Your task to perform on an android device: Search for sushi restaurants on Maps Image 0: 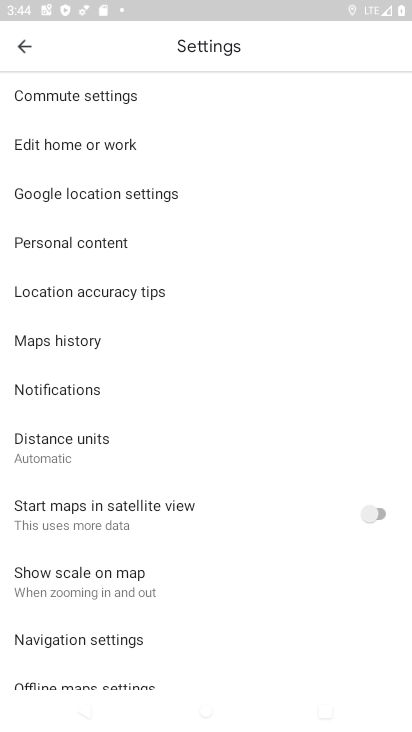
Step 0: click (26, 47)
Your task to perform on an android device: Search for sushi restaurants on Maps Image 1: 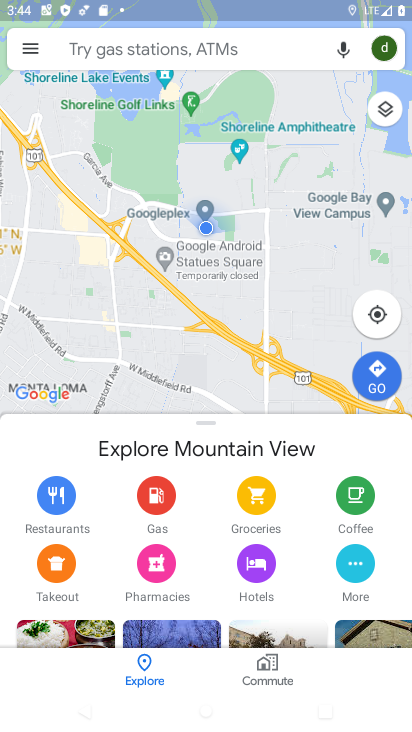
Step 1: click (161, 44)
Your task to perform on an android device: Search for sushi restaurants on Maps Image 2: 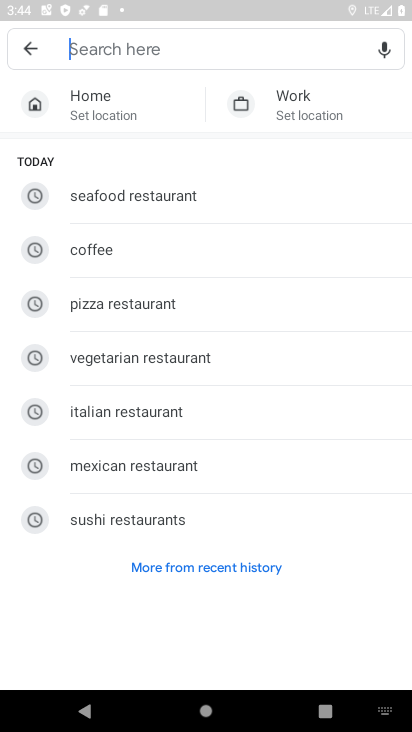
Step 2: type "sushi restaurants"
Your task to perform on an android device: Search for sushi restaurants on Maps Image 3: 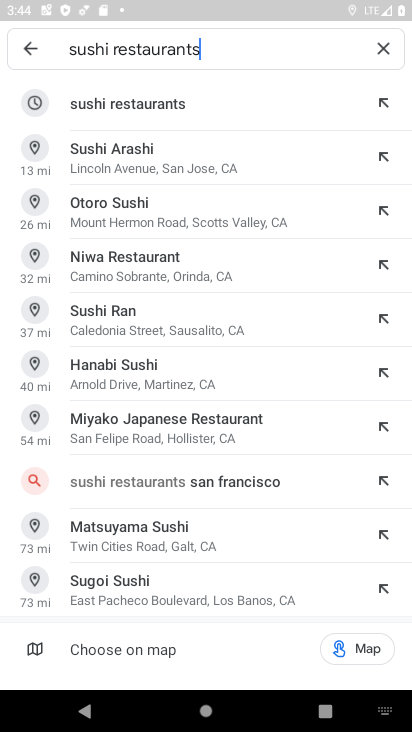
Step 3: click (149, 105)
Your task to perform on an android device: Search for sushi restaurants on Maps Image 4: 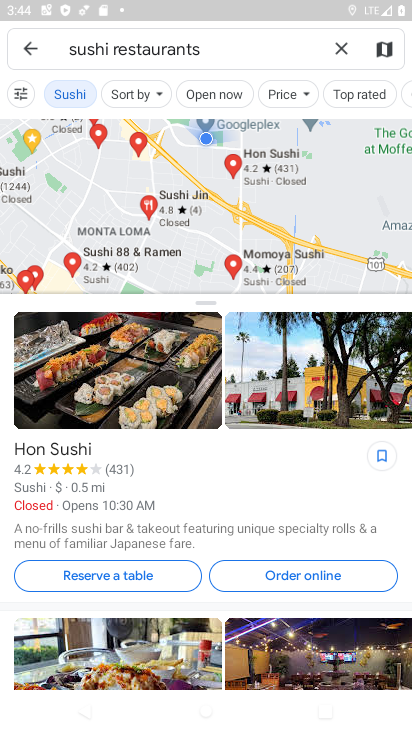
Step 4: task complete